Your task to perform on an android device: turn off priority inbox in the gmail app Image 0: 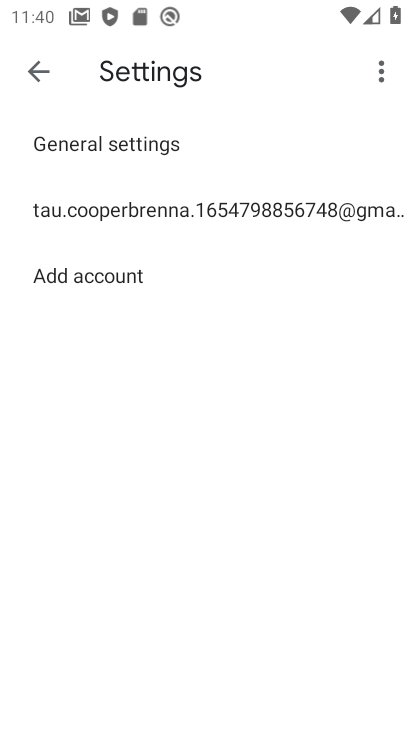
Step 0: press home button
Your task to perform on an android device: turn off priority inbox in the gmail app Image 1: 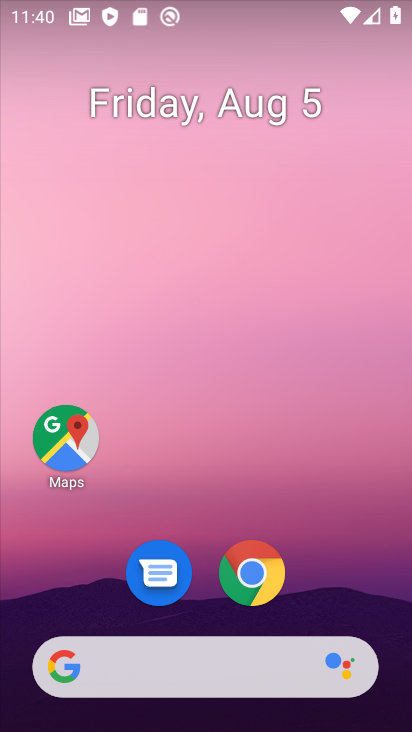
Step 1: drag from (311, 496) to (344, 184)
Your task to perform on an android device: turn off priority inbox in the gmail app Image 2: 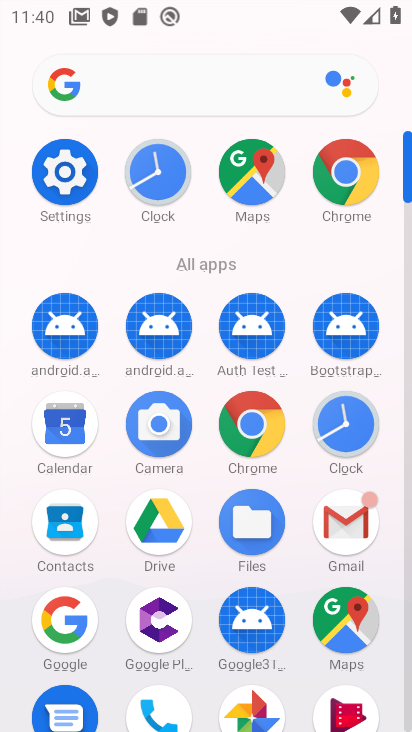
Step 2: click (333, 520)
Your task to perform on an android device: turn off priority inbox in the gmail app Image 3: 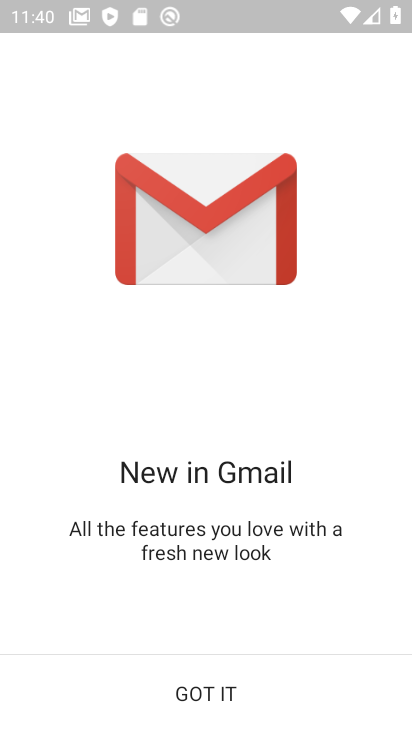
Step 3: click (194, 695)
Your task to perform on an android device: turn off priority inbox in the gmail app Image 4: 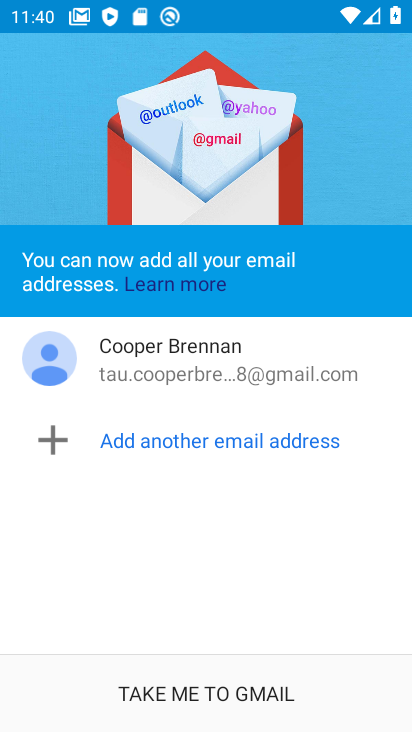
Step 4: click (193, 696)
Your task to perform on an android device: turn off priority inbox in the gmail app Image 5: 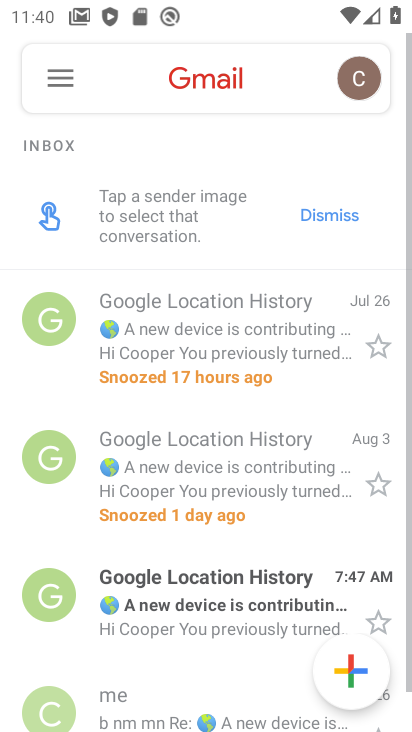
Step 5: task complete